Your task to perform on an android device: turn on sleep mode Image 0: 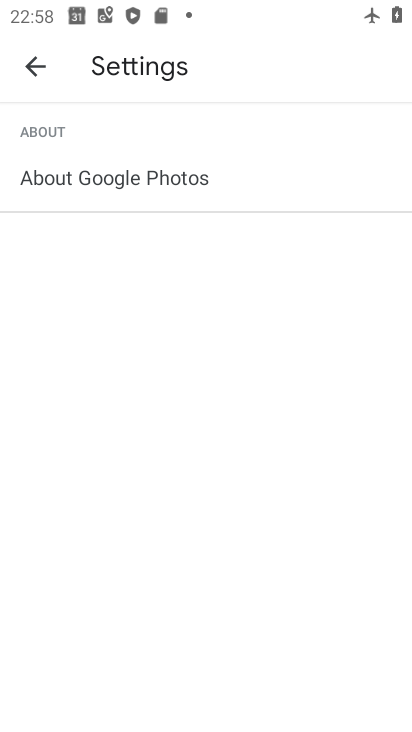
Step 0: press home button
Your task to perform on an android device: turn on sleep mode Image 1: 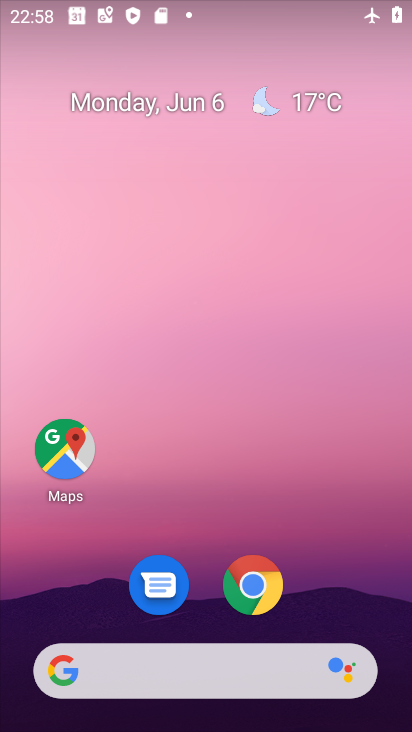
Step 1: drag from (229, 534) to (257, 40)
Your task to perform on an android device: turn on sleep mode Image 2: 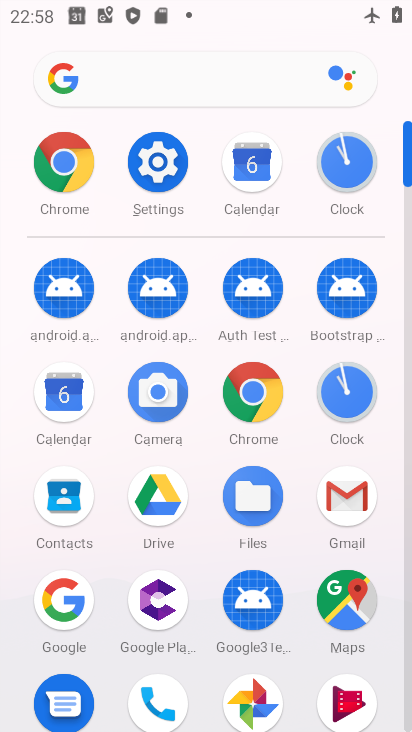
Step 2: click (171, 160)
Your task to perform on an android device: turn on sleep mode Image 3: 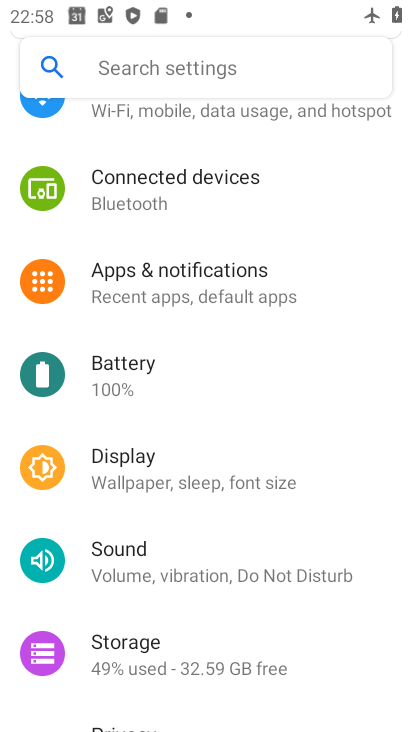
Step 3: click (211, 461)
Your task to perform on an android device: turn on sleep mode Image 4: 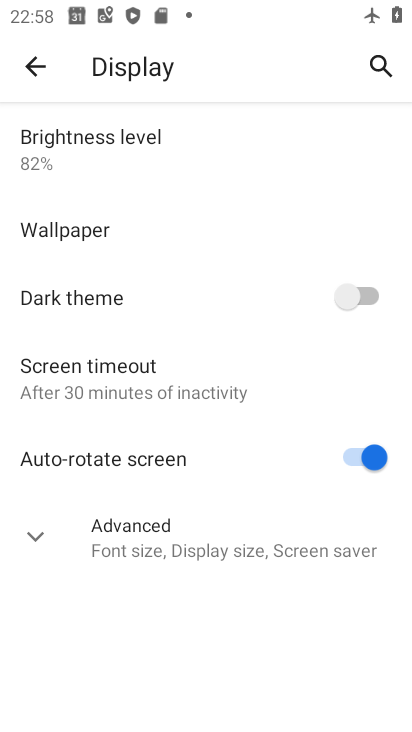
Step 4: click (25, 525)
Your task to perform on an android device: turn on sleep mode Image 5: 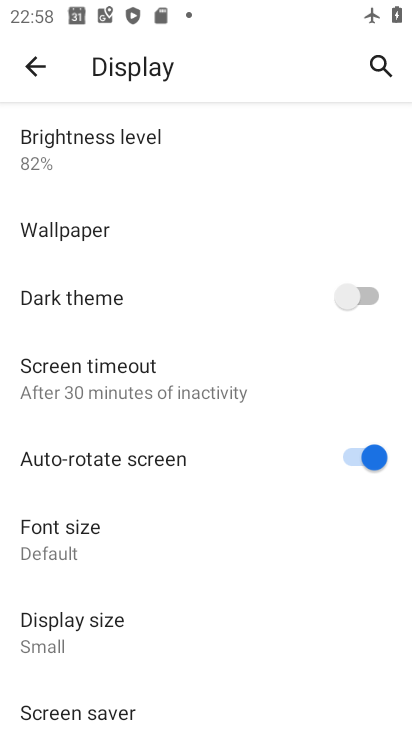
Step 5: task complete